Your task to perform on an android device: toggle sleep mode Image 0: 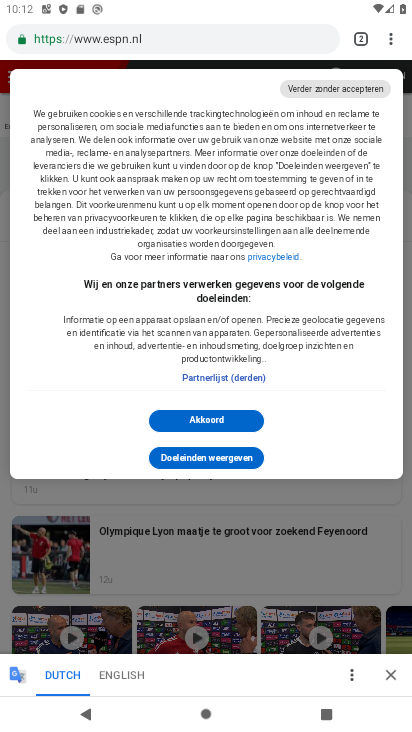
Step 0: press home button
Your task to perform on an android device: toggle sleep mode Image 1: 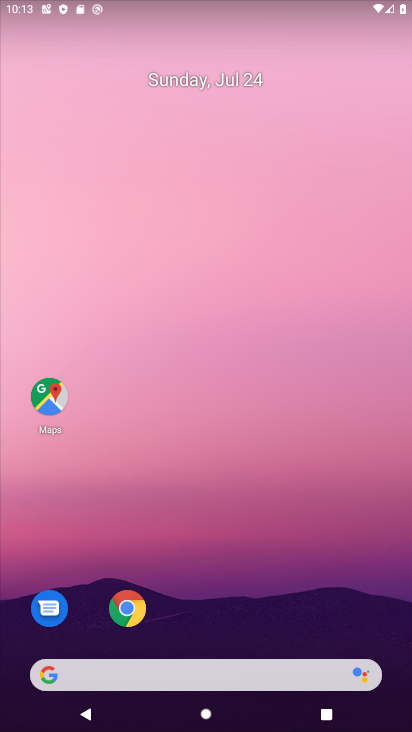
Step 1: drag from (244, 613) to (193, 31)
Your task to perform on an android device: toggle sleep mode Image 2: 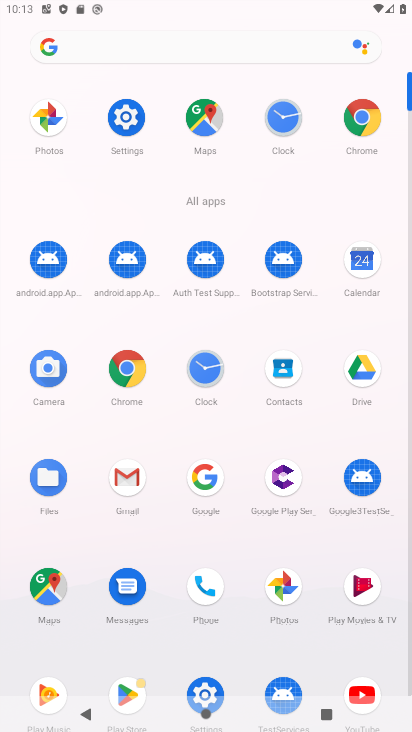
Step 2: click (128, 124)
Your task to perform on an android device: toggle sleep mode Image 3: 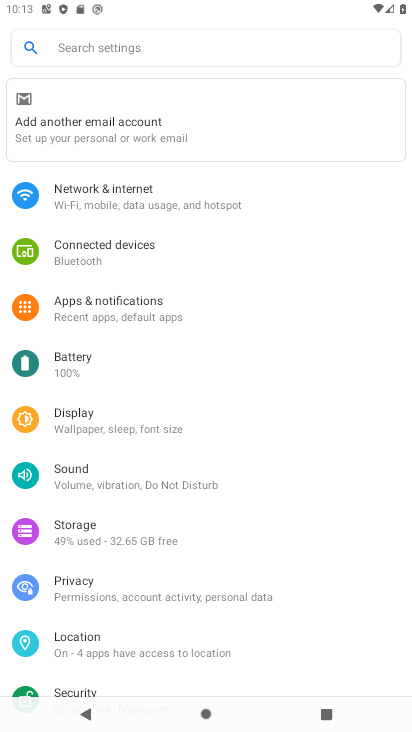
Step 3: click (111, 419)
Your task to perform on an android device: toggle sleep mode Image 4: 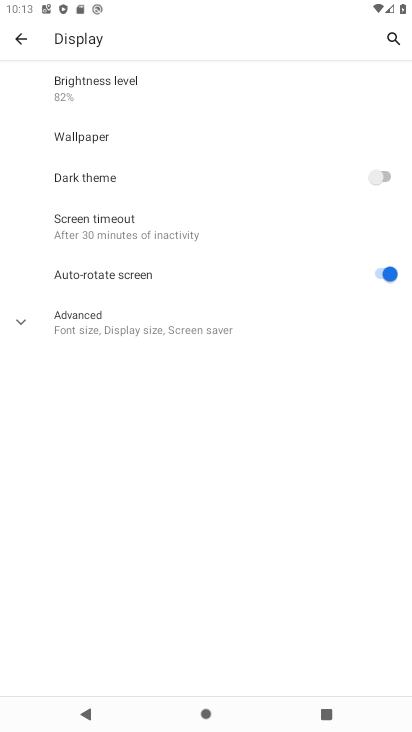
Step 4: click (195, 318)
Your task to perform on an android device: toggle sleep mode Image 5: 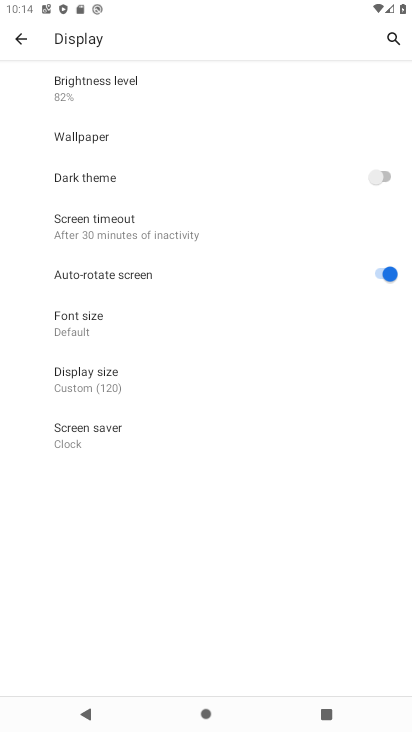
Step 5: task complete